Your task to perform on an android device: open app "Spotify" Image 0: 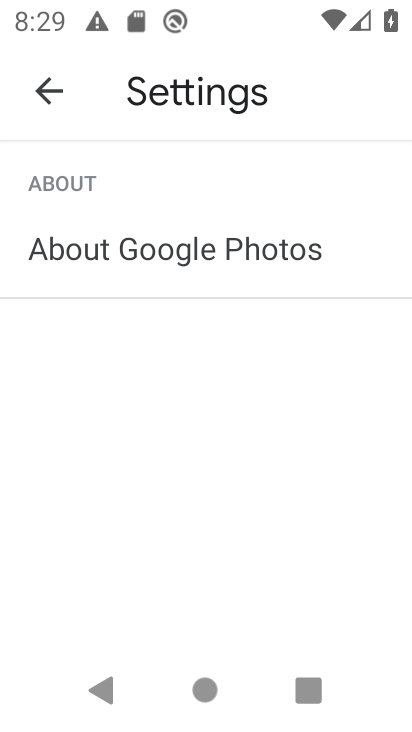
Step 0: press home button
Your task to perform on an android device: open app "Spotify" Image 1: 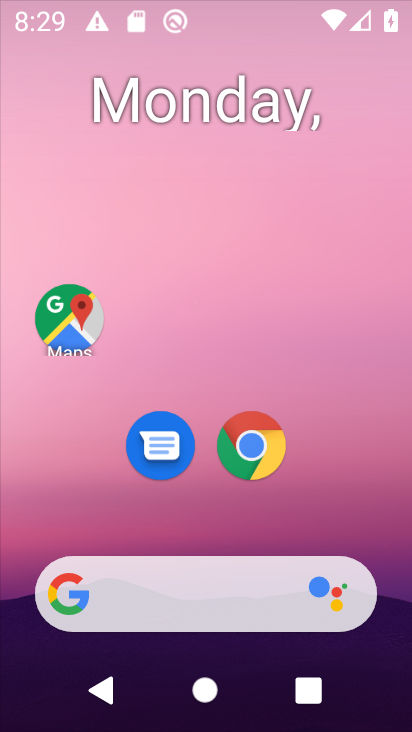
Step 1: drag from (385, 617) to (209, 101)
Your task to perform on an android device: open app "Spotify" Image 2: 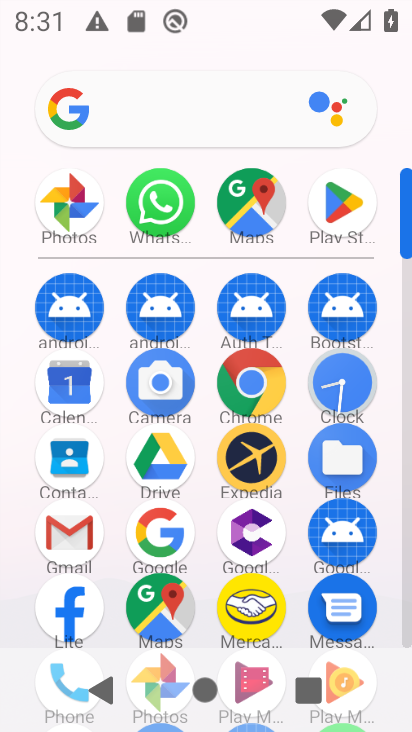
Step 2: click (349, 205)
Your task to perform on an android device: open app "Spotify" Image 3: 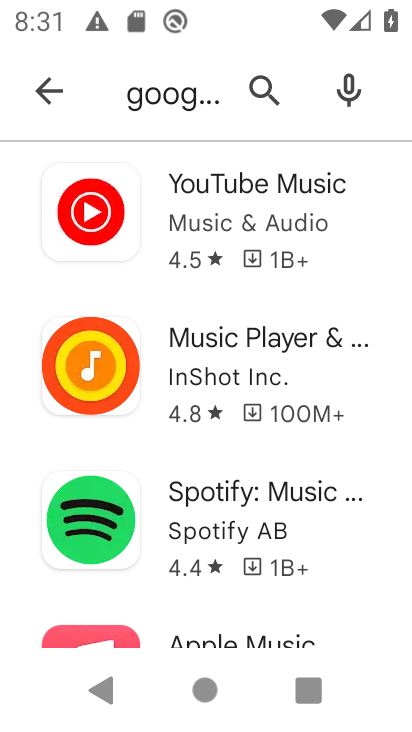
Step 3: press back button
Your task to perform on an android device: open app "Spotify" Image 4: 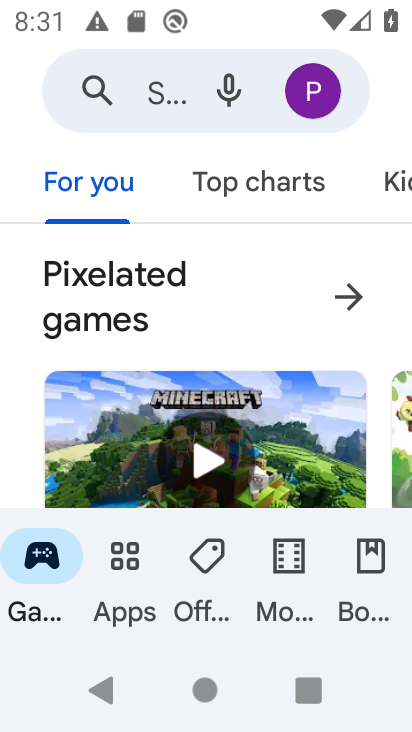
Step 4: click (132, 106)
Your task to perform on an android device: open app "Spotify" Image 5: 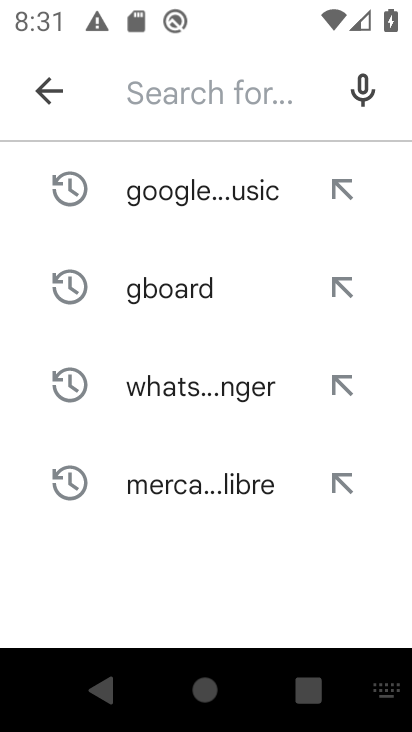
Step 5: type "Spotify"
Your task to perform on an android device: open app "Spotify" Image 6: 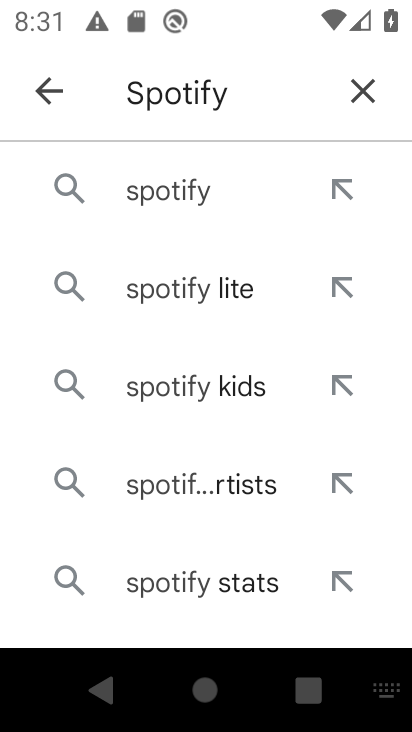
Step 6: click (186, 183)
Your task to perform on an android device: open app "Spotify" Image 7: 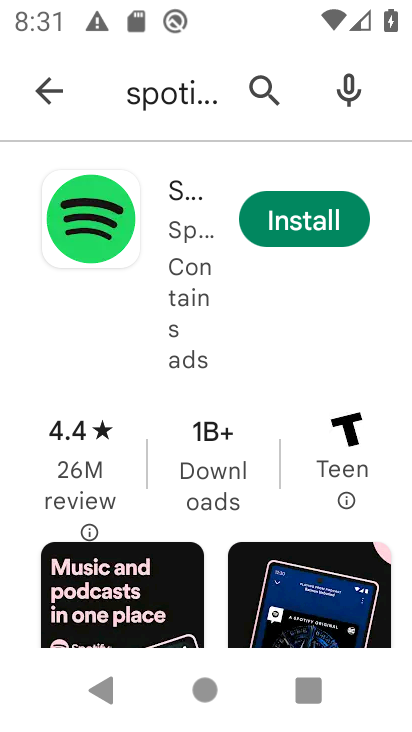
Step 7: task complete